Your task to perform on an android device: Open Yahoo.com Image 0: 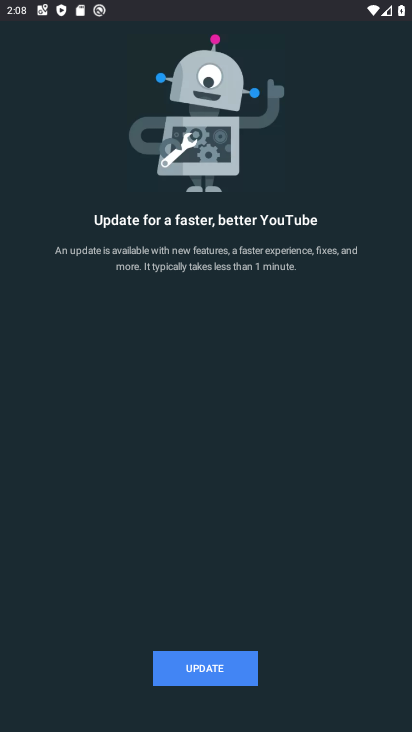
Step 0: press home button
Your task to perform on an android device: Open Yahoo.com Image 1: 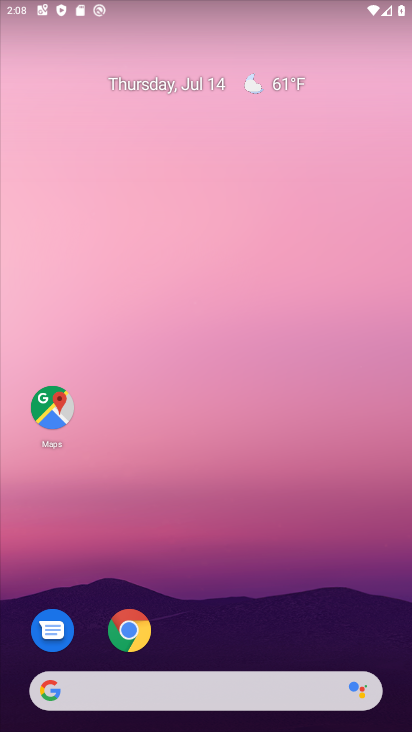
Step 1: drag from (142, 695) to (268, 10)
Your task to perform on an android device: Open Yahoo.com Image 2: 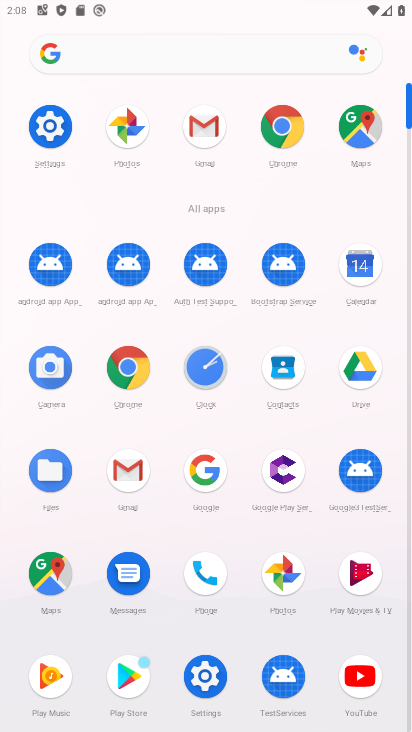
Step 2: click (290, 114)
Your task to perform on an android device: Open Yahoo.com Image 3: 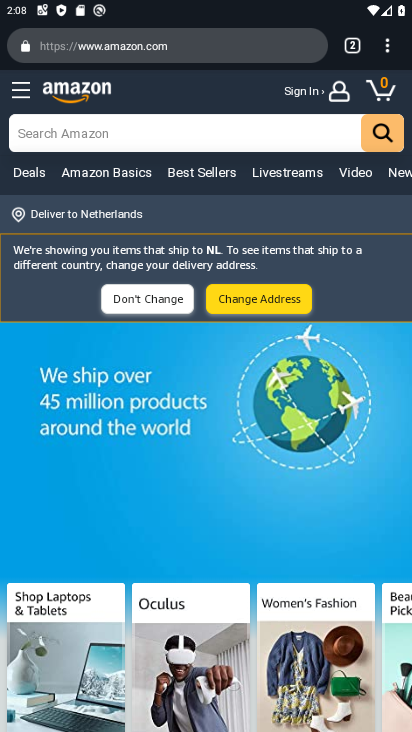
Step 3: drag from (388, 47) to (262, 152)
Your task to perform on an android device: Open Yahoo.com Image 4: 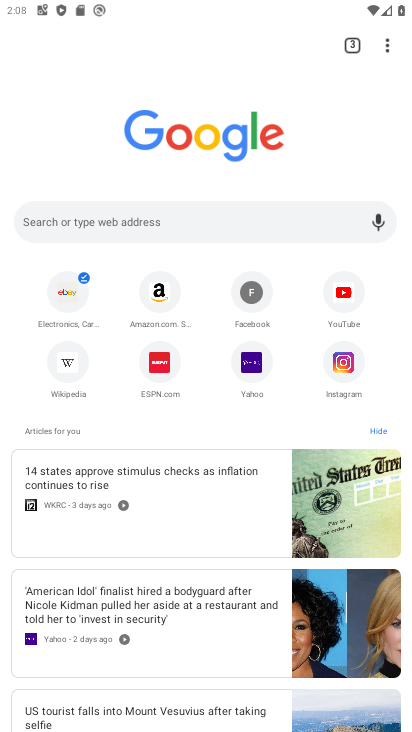
Step 4: click (252, 361)
Your task to perform on an android device: Open Yahoo.com Image 5: 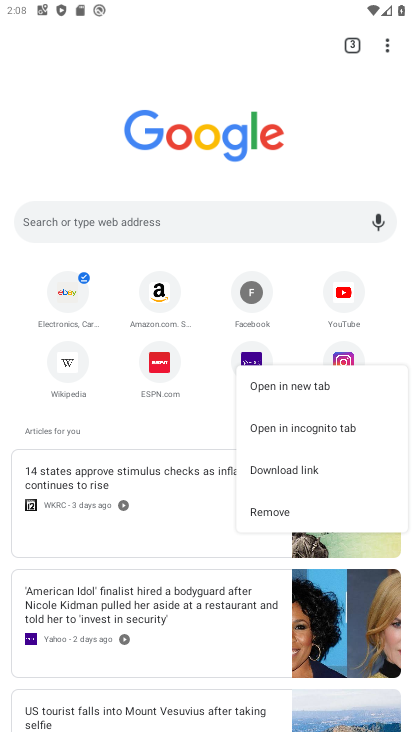
Step 5: click (252, 358)
Your task to perform on an android device: Open Yahoo.com Image 6: 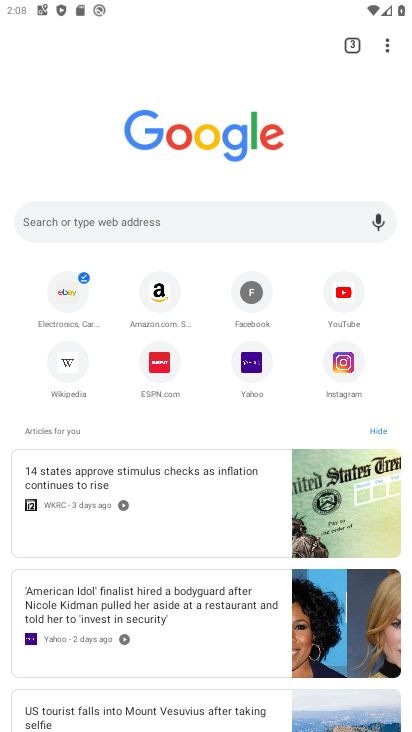
Step 6: click (249, 366)
Your task to perform on an android device: Open Yahoo.com Image 7: 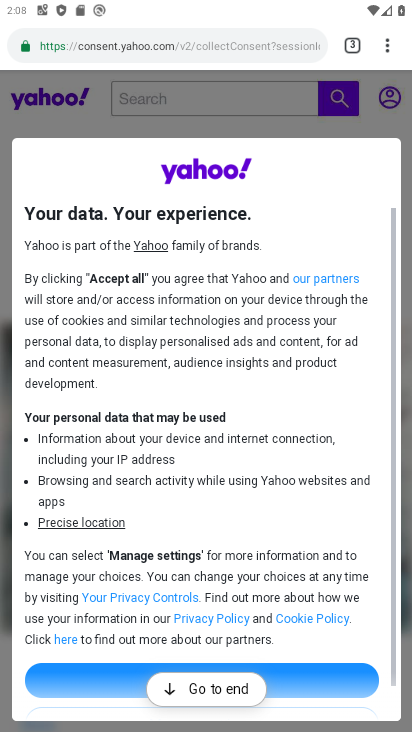
Step 7: click (279, 671)
Your task to perform on an android device: Open Yahoo.com Image 8: 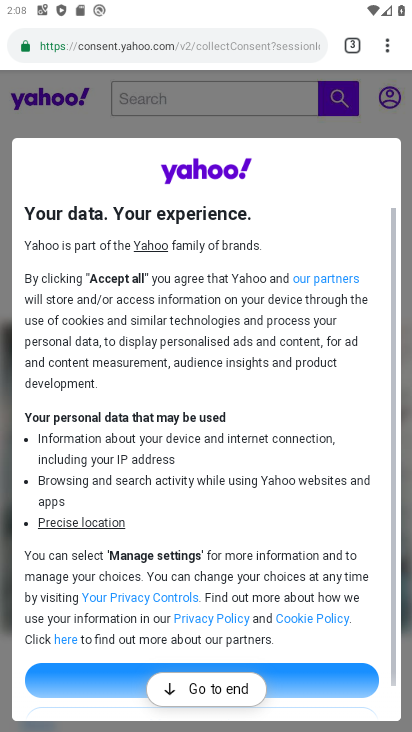
Step 8: click (180, 684)
Your task to perform on an android device: Open Yahoo.com Image 9: 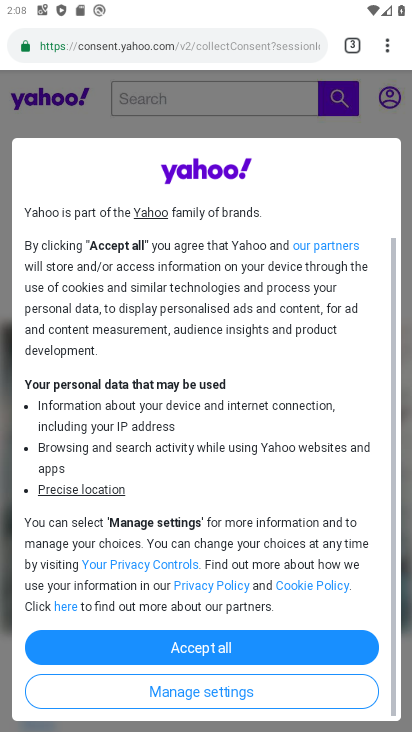
Step 9: click (205, 648)
Your task to perform on an android device: Open Yahoo.com Image 10: 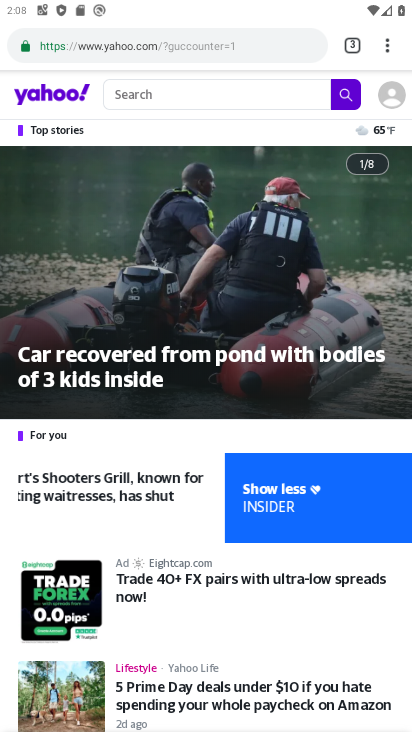
Step 10: task complete